Your task to perform on an android device: Open Google Chrome Image 0: 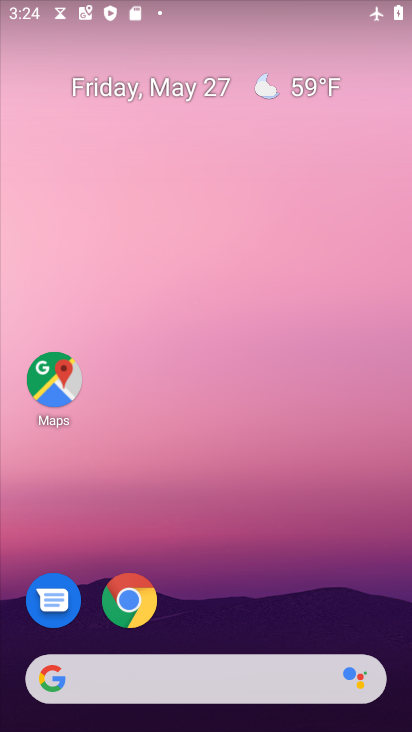
Step 0: click (131, 601)
Your task to perform on an android device: Open Google Chrome Image 1: 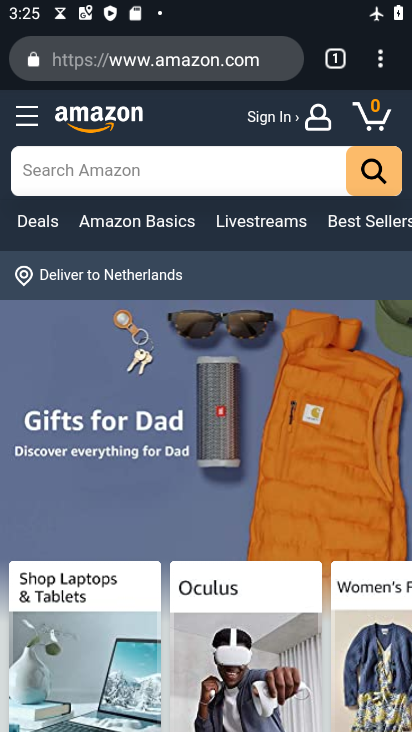
Step 1: task complete